Your task to perform on an android device: Go to accessibility settings Image 0: 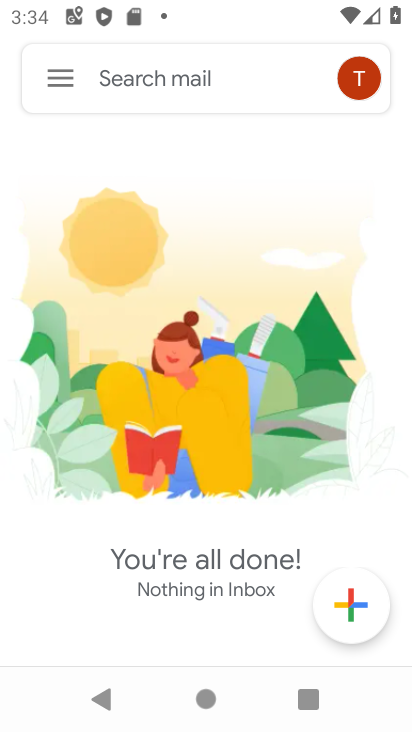
Step 0: task complete